Your task to perform on an android device: Open Chrome and go to settings Image 0: 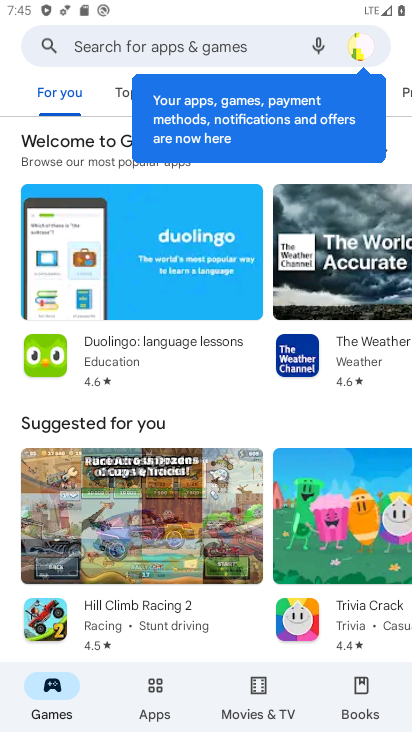
Step 0: press home button
Your task to perform on an android device: Open Chrome and go to settings Image 1: 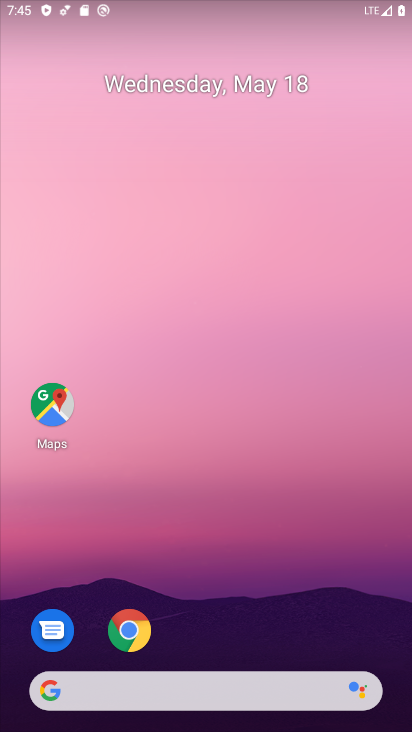
Step 1: drag from (276, 402) to (253, 173)
Your task to perform on an android device: Open Chrome and go to settings Image 2: 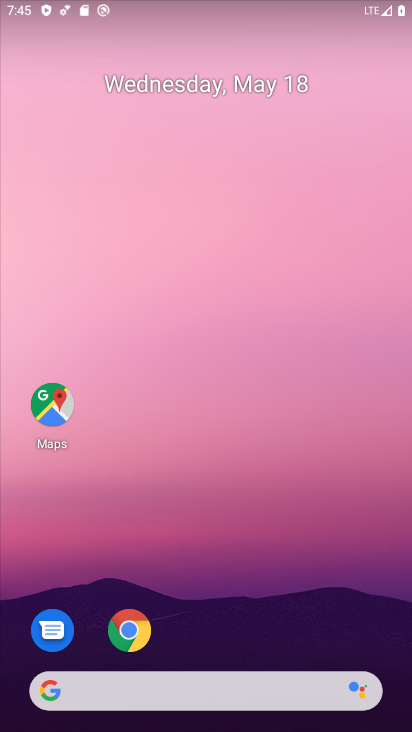
Step 2: drag from (297, 599) to (302, 217)
Your task to perform on an android device: Open Chrome and go to settings Image 3: 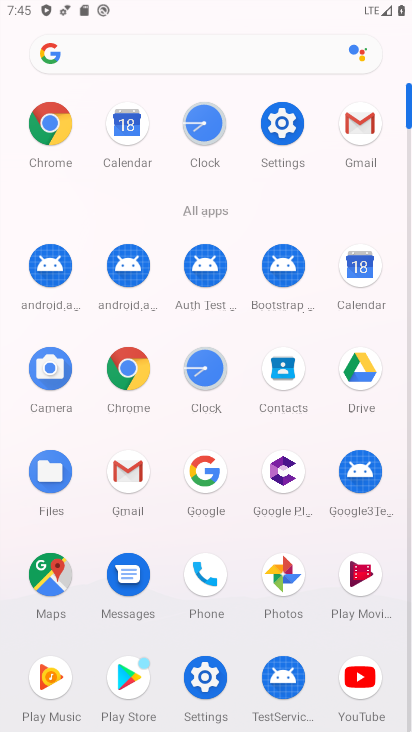
Step 3: click (130, 384)
Your task to perform on an android device: Open Chrome and go to settings Image 4: 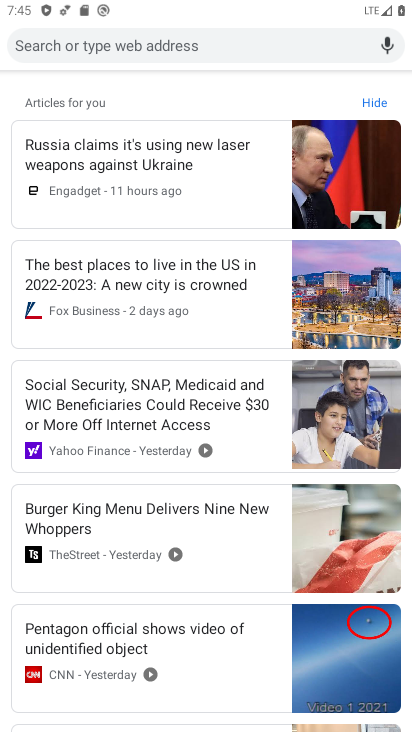
Step 4: task complete